Your task to perform on an android device: Open the calendar app, open the side menu, and click the "Day" option Image 0: 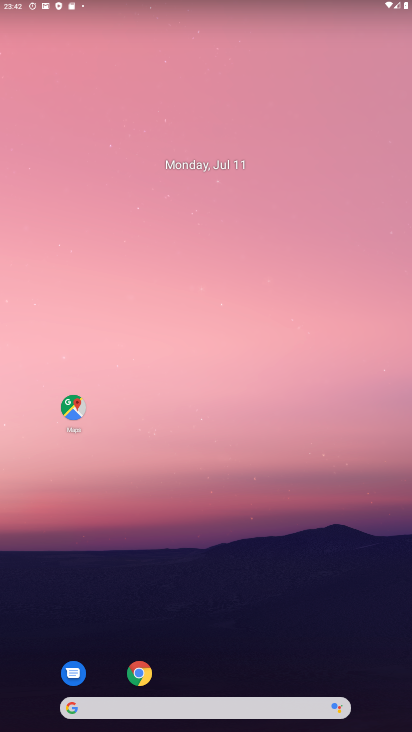
Step 0: press home button
Your task to perform on an android device: Open the calendar app, open the side menu, and click the "Day" option Image 1: 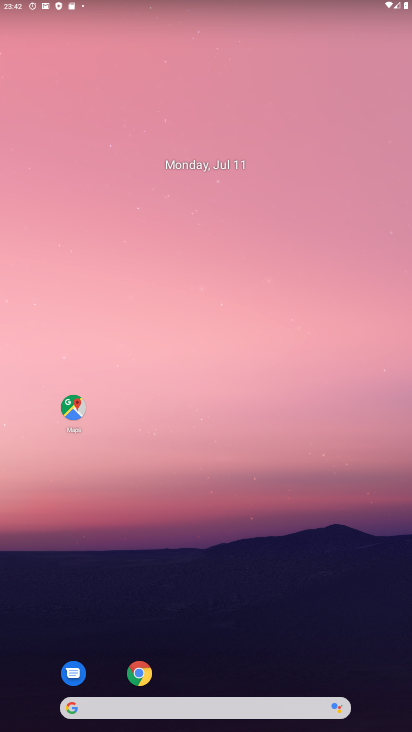
Step 1: drag from (234, 600) to (283, 1)
Your task to perform on an android device: Open the calendar app, open the side menu, and click the "Day" option Image 2: 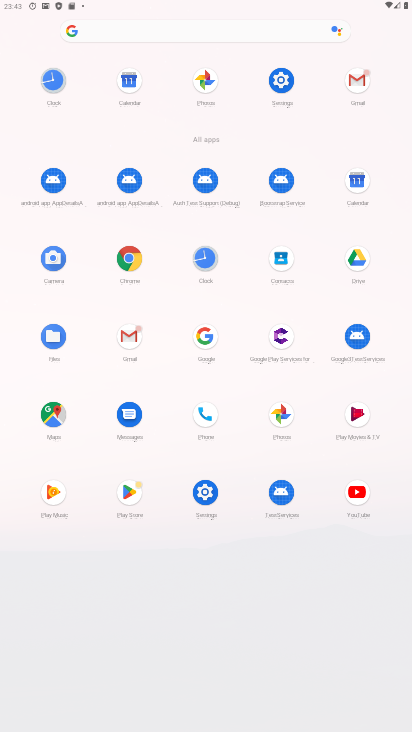
Step 2: click (361, 174)
Your task to perform on an android device: Open the calendar app, open the side menu, and click the "Day" option Image 3: 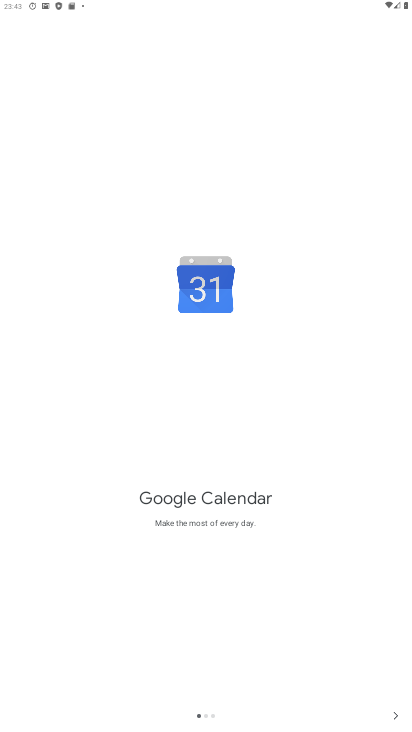
Step 3: click (394, 720)
Your task to perform on an android device: Open the calendar app, open the side menu, and click the "Day" option Image 4: 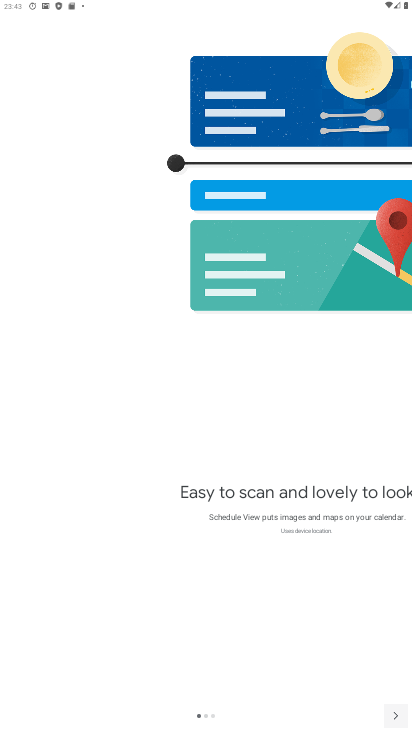
Step 4: click (392, 721)
Your task to perform on an android device: Open the calendar app, open the side menu, and click the "Day" option Image 5: 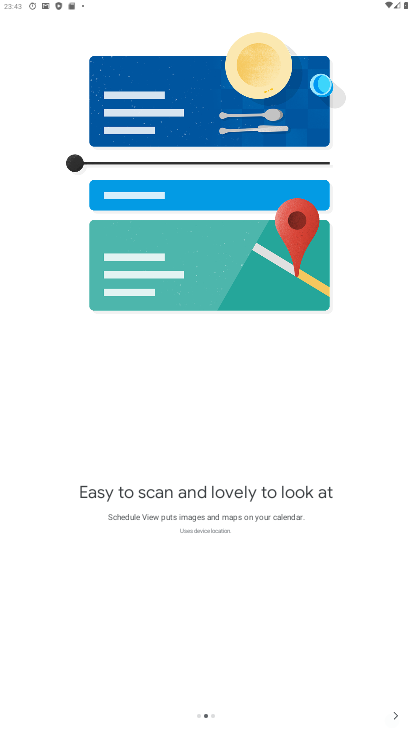
Step 5: click (393, 721)
Your task to perform on an android device: Open the calendar app, open the side menu, and click the "Day" option Image 6: 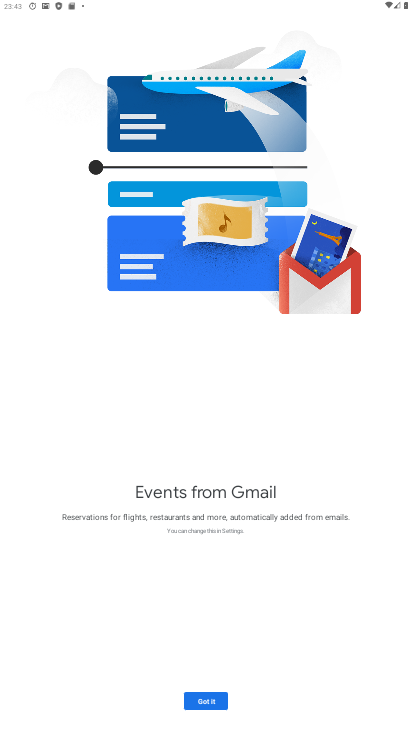
Step 6: click (212, 693)
Your task to perform on an android device: Open the calendar app, open the side menu, and click the "Day" option Image 7: 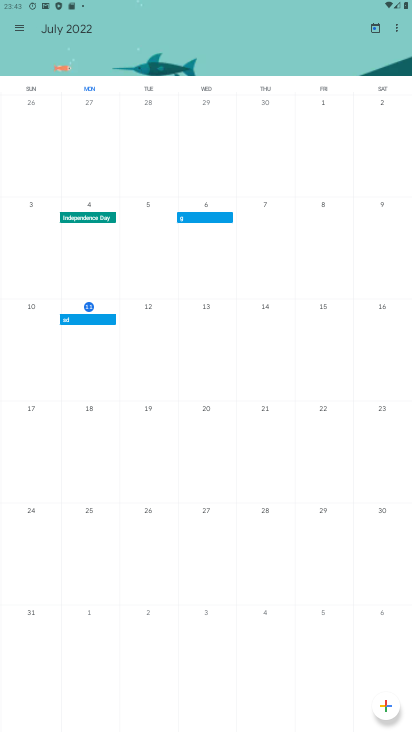
Step 7: click (19, 28)
Your task to perform on an android device: Open the calendar app, open the side menu, and click the "Day" option Image 8: 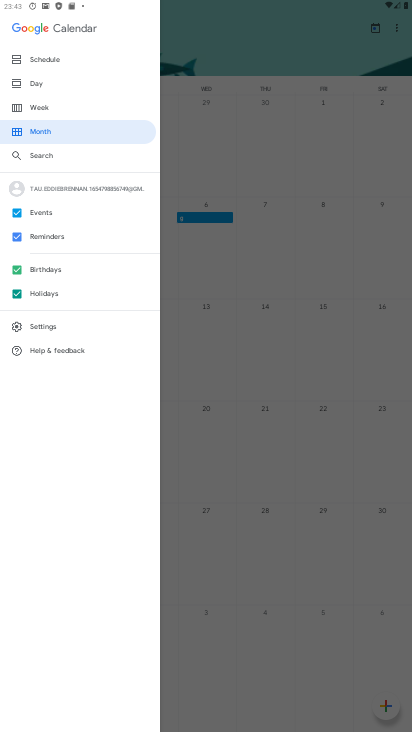
Step 8: click (39, 87)
Your task to perform on an android device: Open the calendar app, open the side menu, and click the "Day" option Image 9: 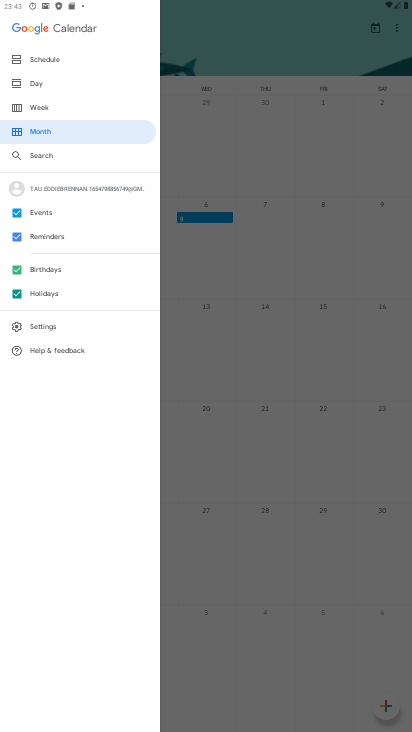
Step 9: click (30, 85)
Your task to perform on an android device: Open the calendar app, open the side menu, and click the "Day" option Image 10: 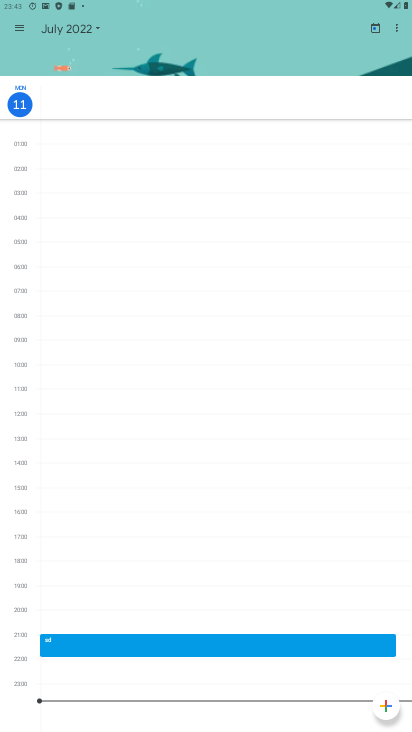
Step 10: task complete